Your task to perform on an android device: empty trash in the gmail app Image 0: 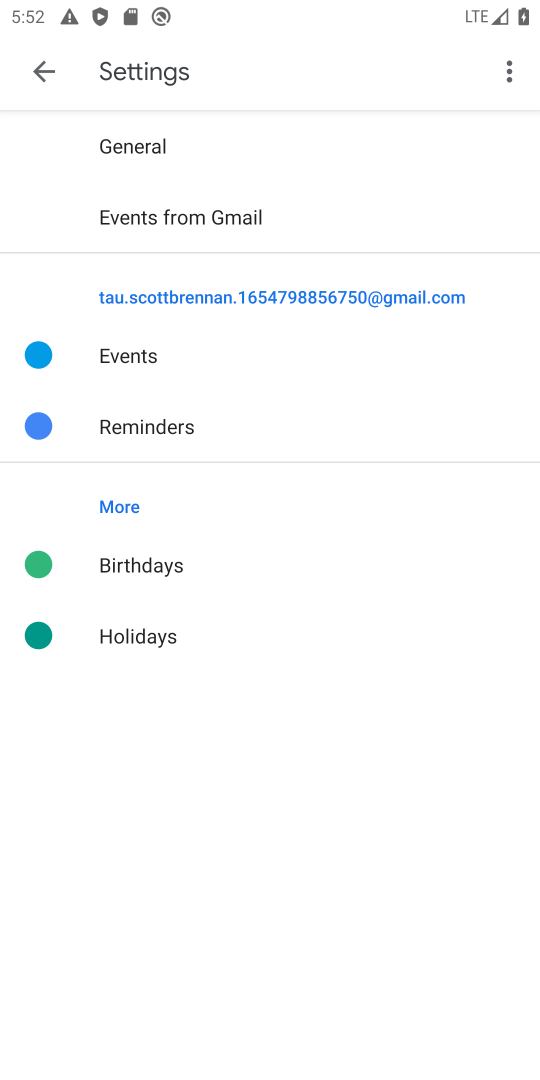
Step 0: press back button
Your task to perform on an android device: empty trash in the gmail app Image 1: 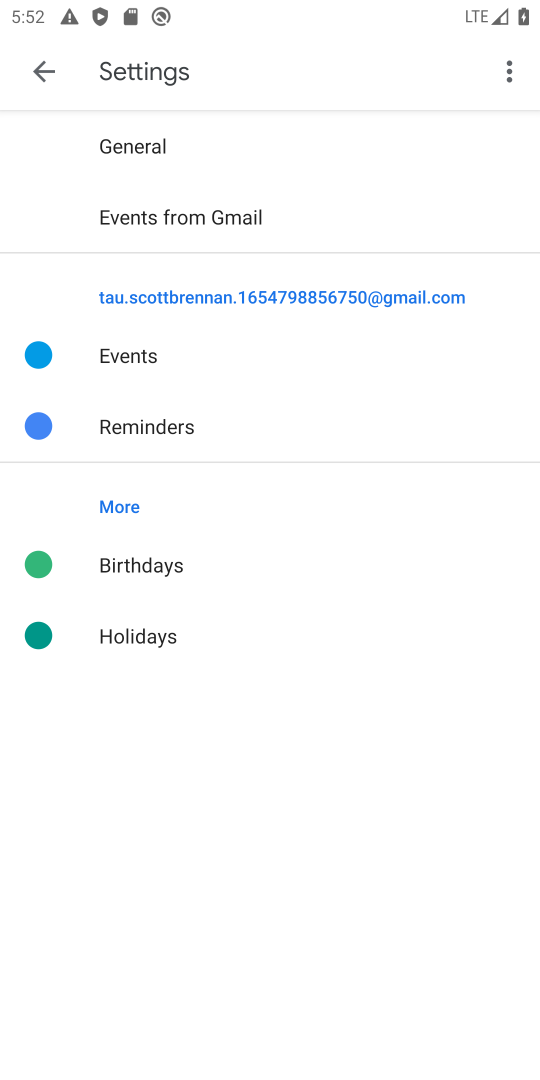
Step 1: press home button
Your task to perform on an android device: empty trash in the gmail app Image 2: 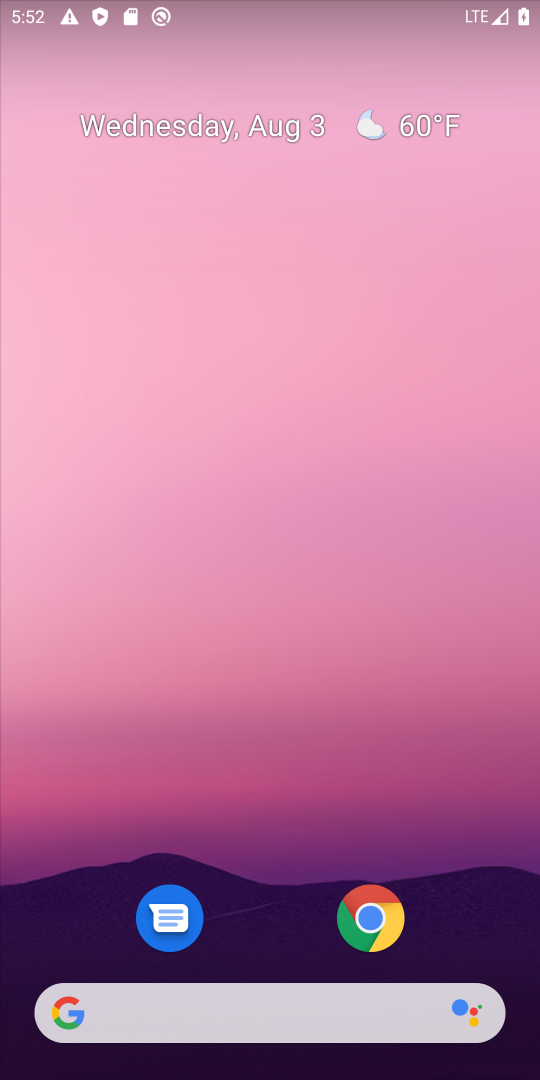
Step 2: drag from (230, 1003) to (370, 162)
Your task to perform on an android device: empty trash in the gmail app Image 3: 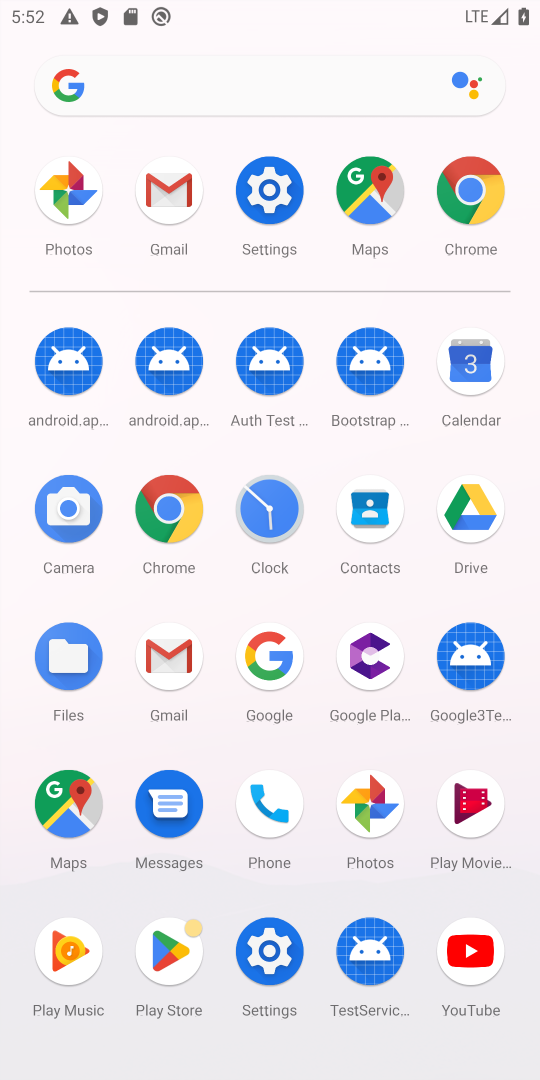
Step 3: click (163, 675)
Your task to perform on an android device: empty trash in the gmail app Image 4: 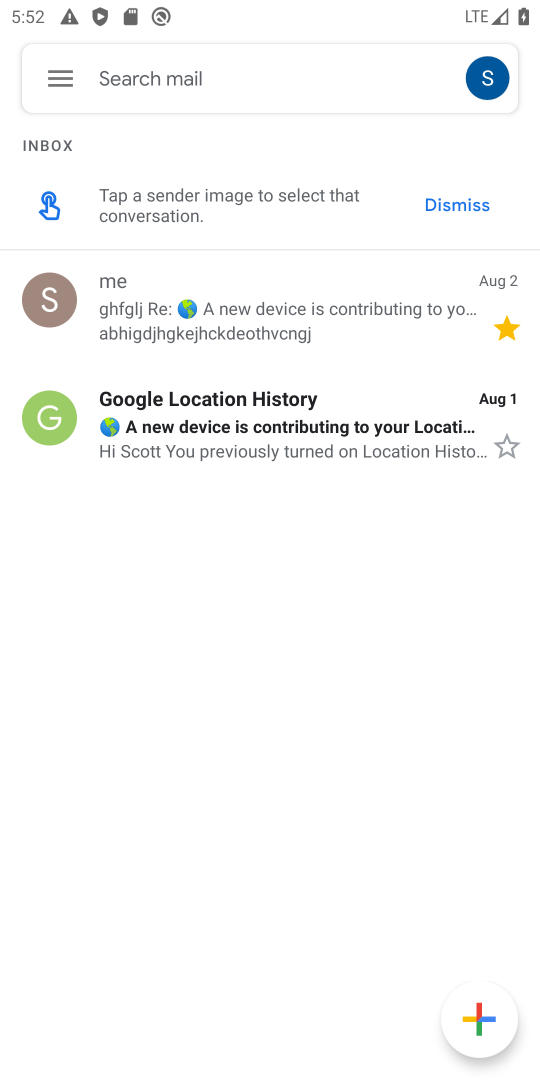
Step 4: click (46, 86)
Your task to perform on an android device: empty trash in the gmail app Image 5: 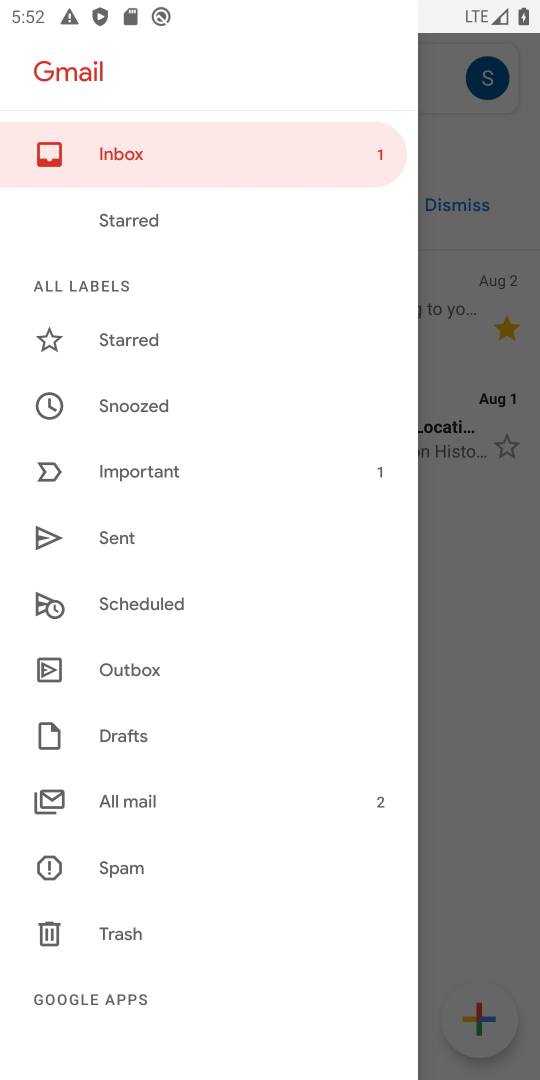
Step 5: click (111, 931)
Your task to perform on an android device: empty trash in the gmail app Image 6: 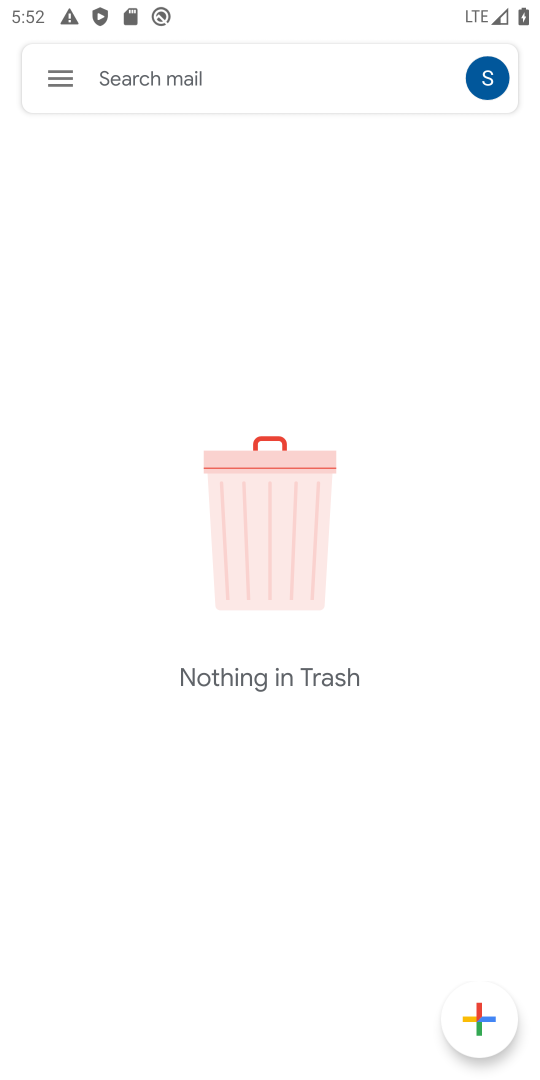
Step 6: task complete